Your task to perform on an android device: Open location settings Image 0: 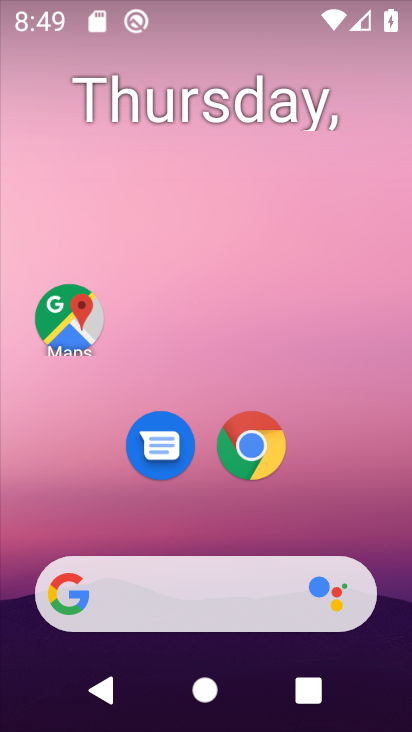
Step 0: drag from (300, 504) to (168, 87)
Your task to perform on an android device: Open location settings Image 1: 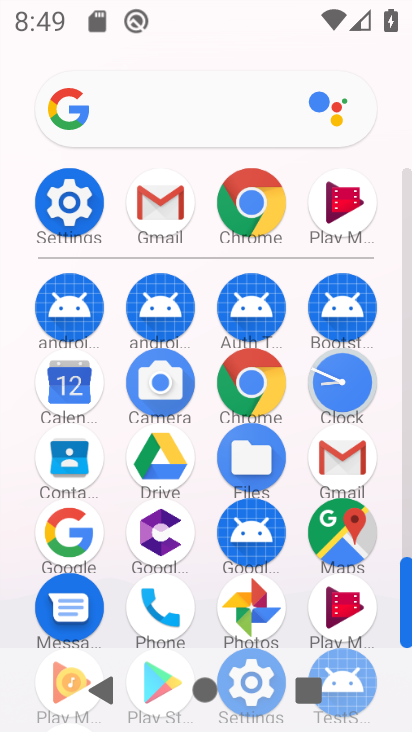
Step 1: click (68, 225)
Your task to perform on an android device: Open location settings Image 2: 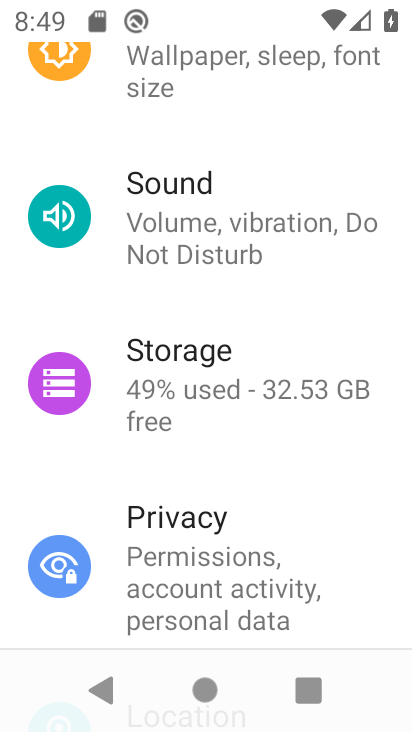
Step 2: drag from (193, 582) to (140, 151)
Your task to perform on an android device: Open location settings Image 3: 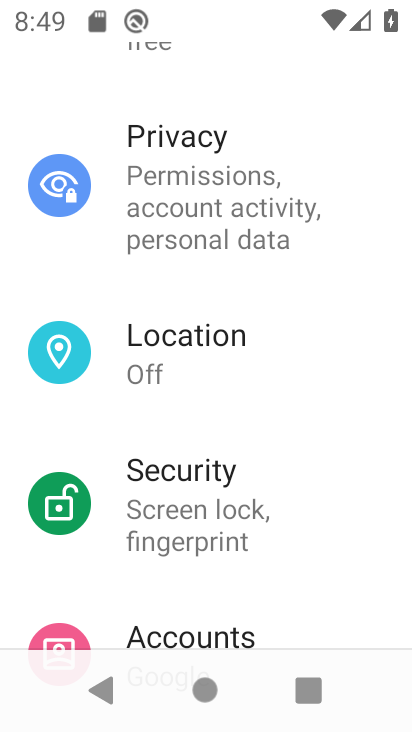
Step 3: click (135, 353)
Your task to perform on an android device: Open location settings Image 4: 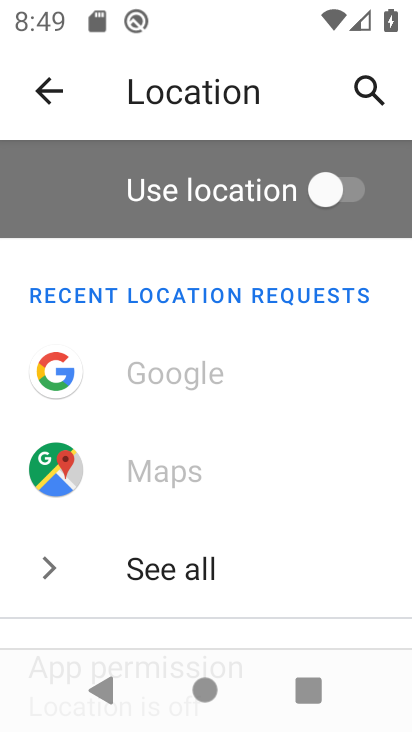
Step 4: task complete